Your task to perform on an android device: What's the weather going to be this weekend? Image 0: 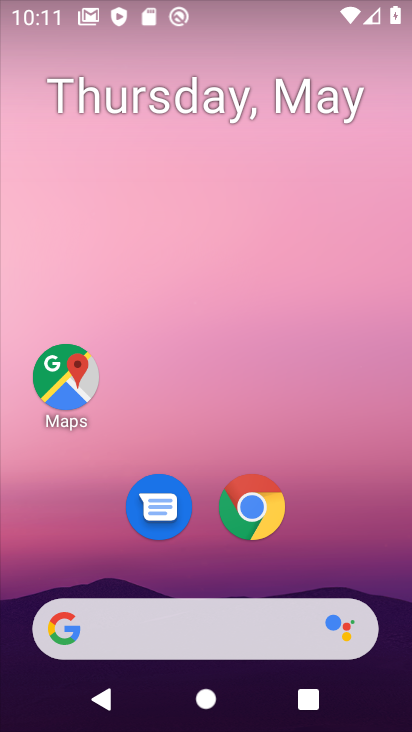
Step 0: drag from (358, 554) to (352, 18)
Your task to perform on an android device: What's the weather going to be this weekend? Image 1: 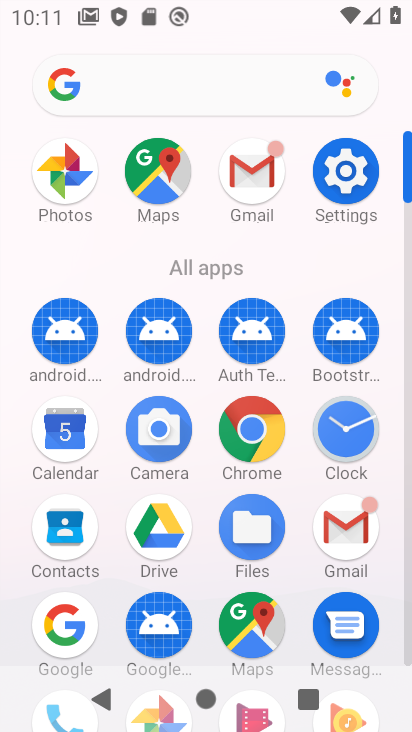
Step 1: press home button
Your task to perform on an android device: What's the weather going to be this weekend? Image 2: 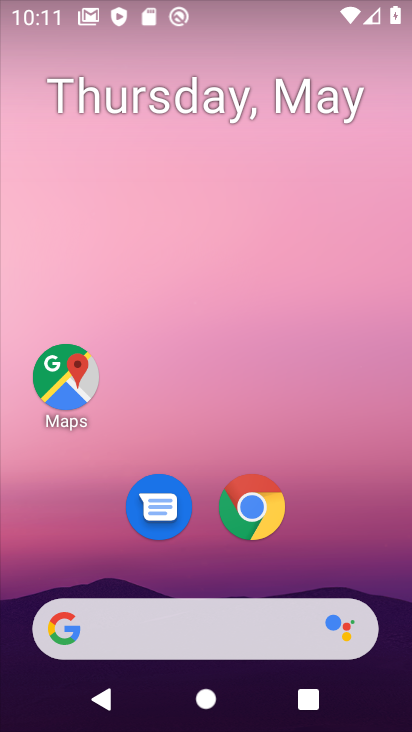
Step 2: drag from (342, 571) to (278, 137)
Your task to perform on an android device: What's the weather going to be this weekend? Image 3: 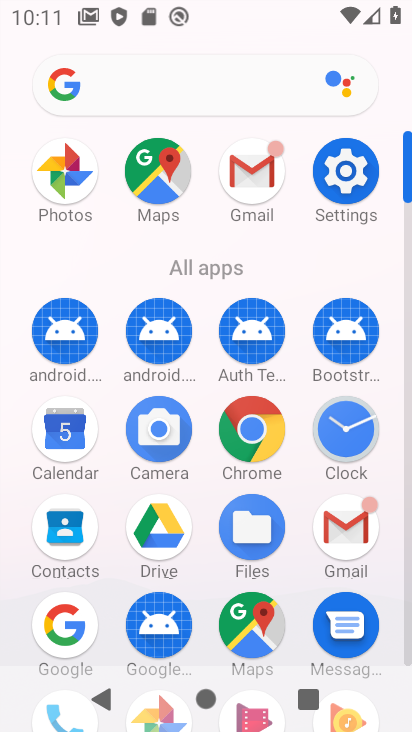
Step 3: click (66, 634)
Your task to perform on an android device: What's the weather going to be this weekend? Image 4: 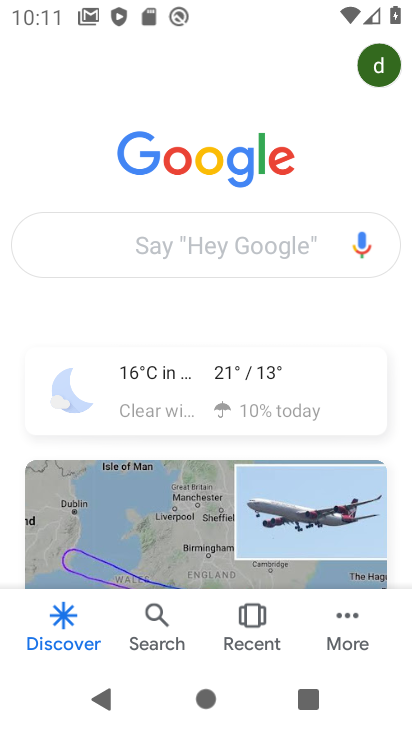
Step 4: click (239, 389)
Your task to perform on an android device: What's the weather going to be this weekend? Image 5: 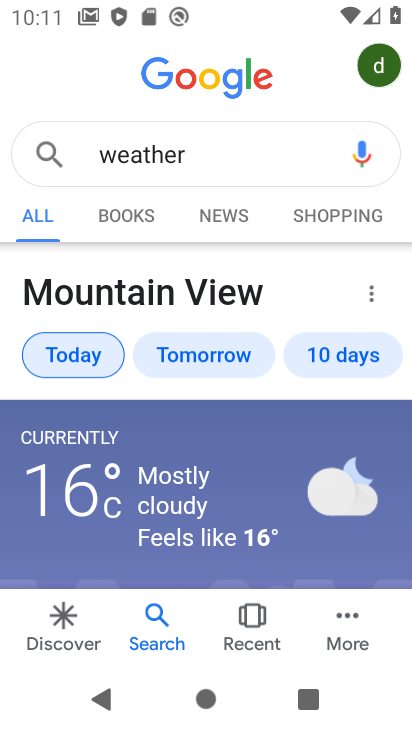
Step 5: task complete